Your task to perform on an android device: Go to settings Image 0: 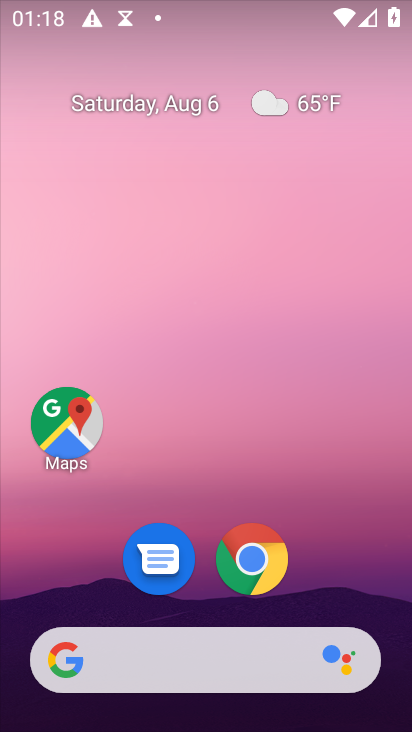
Step 0: drag from (359, 601) to (248, 266)
Your task to perform on an android device: Go to settings Image 1: 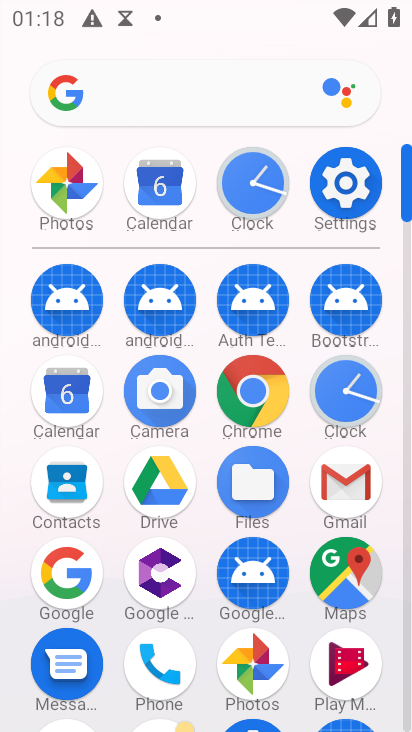
Step 1: click (340, 197)
Your task to perform on an android device: Go to settings Image 2: 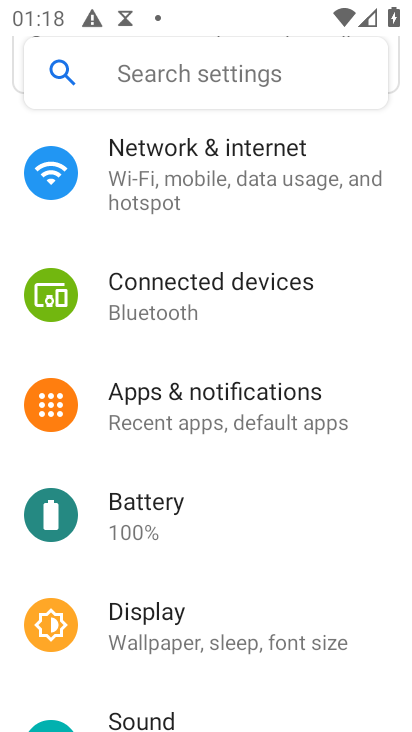
Step 2: task complete